Your task to perform on an android device: all mails in gmail Image 0: 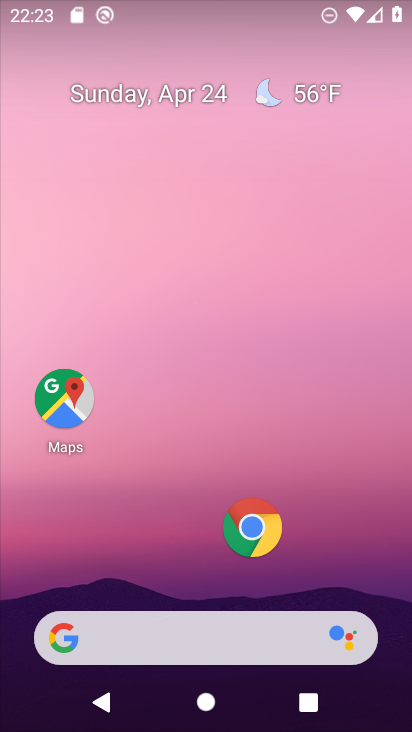
Step 0: drag from (164, 546) to (251, 24)
Your task to perform on an android device: all mails in gmail Image 1: 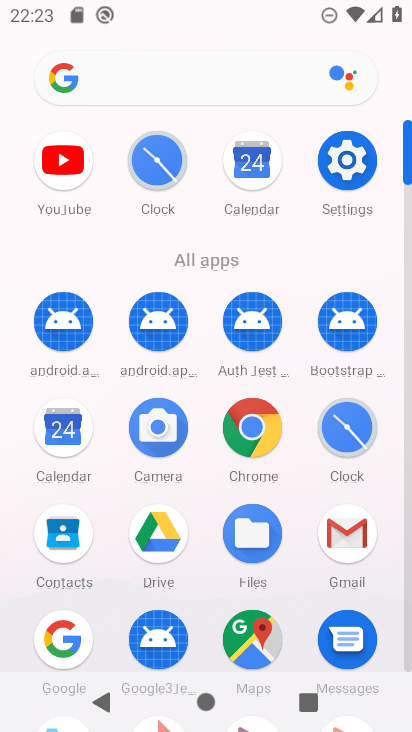
Step 1: click (343, 527)
Your task to perform on an android device: all mails in gmail Image 2: 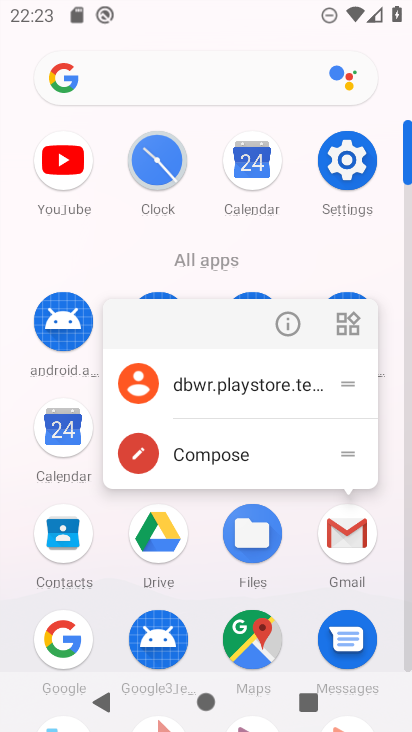
Step 2: click (344, 529)
Your task to perform on an android device: all mails in gmail Image 3: 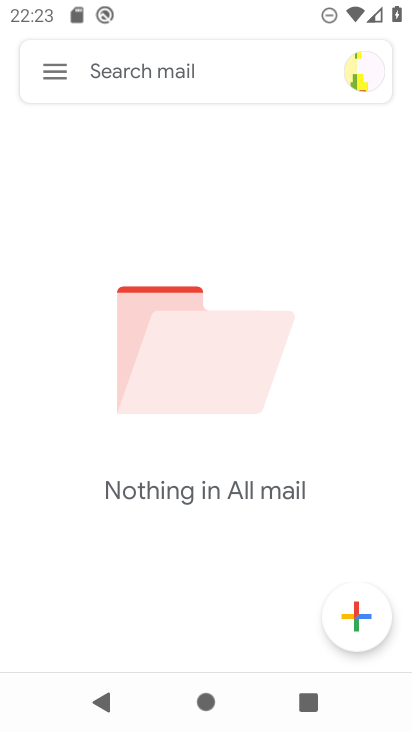
Step 3: task complete